Your task to perform on an android device: Show me popular videos on Youtube Image 0: 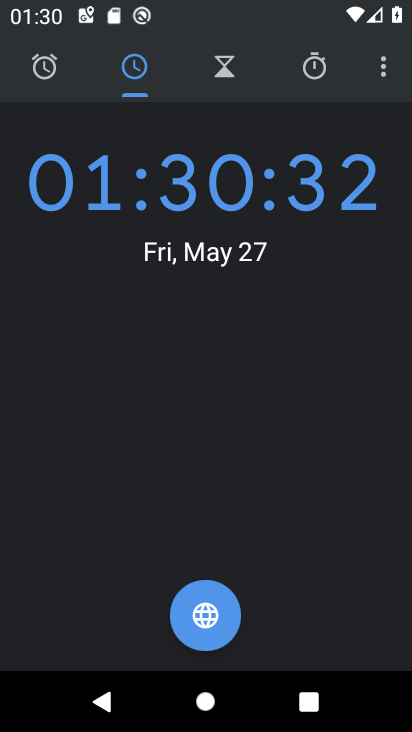
Step 0: press home button
Your task to perform on an android device: Show me popular videos on Youtube Image 1: 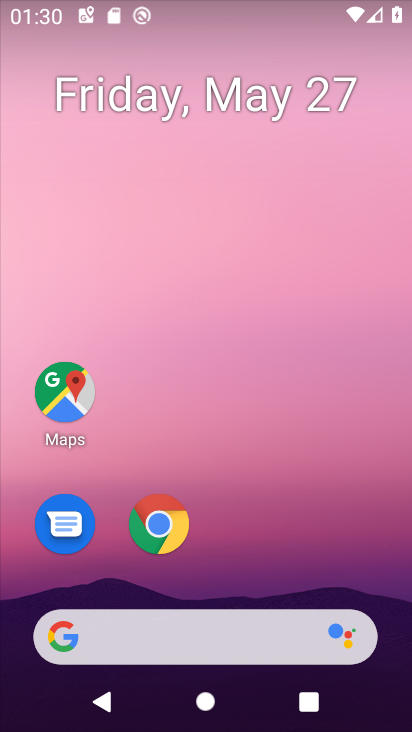
Step 1: drag from (232, 545) to (274, 0)
Your task to perform on an android device: Show me popular videos on Youtube Image 2: 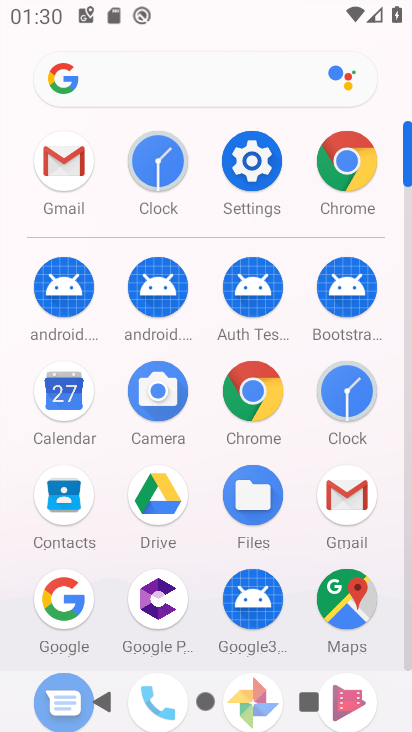
Step 2: drag from (215, 566) to (194, 191)
Your task to perform on an android device: Show me popular videos on Youtube Image 3: 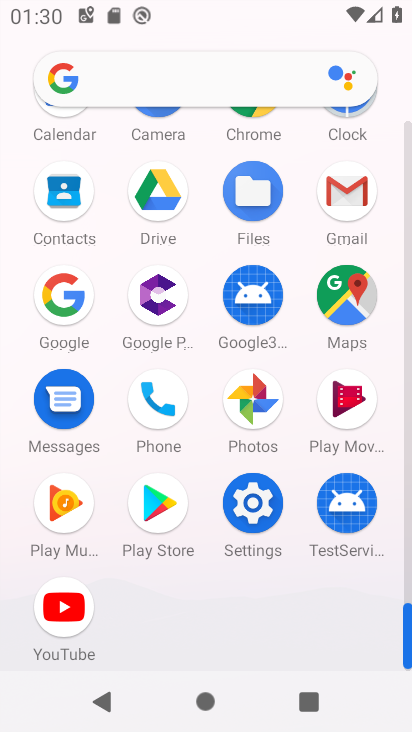
Step 3: click (65, 608)
Your task to perform on an android device: Show me popular videos on Youtube Image 4: 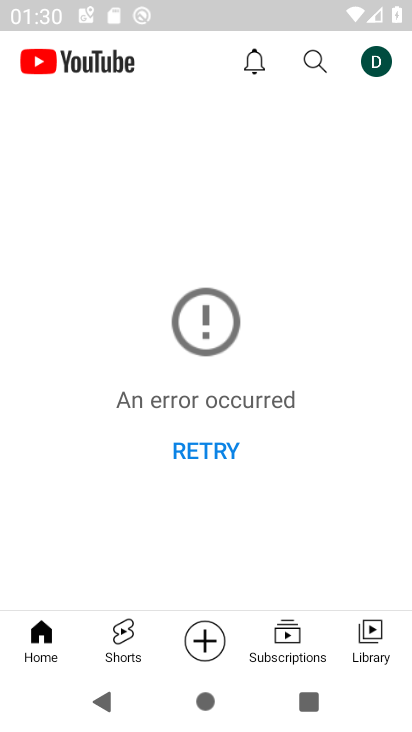
Step 4: click (317, 53)
Your task to perform on an android device: Show me popular videos on Youtube Image 5: 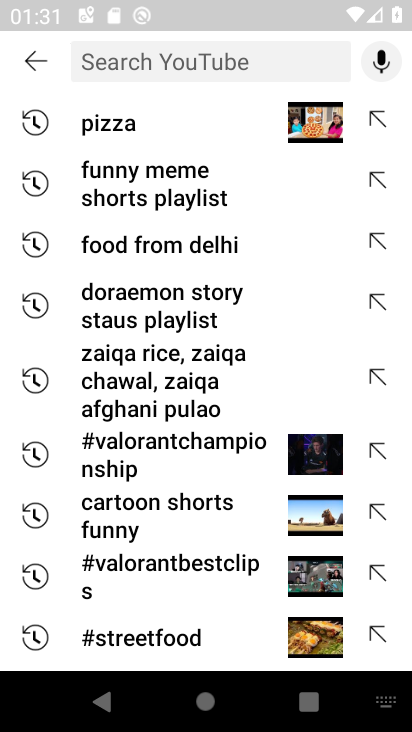
Step 5: type "popular videos"
Your task to perform on an android device: Show me popular videos on Youtube Image 6: 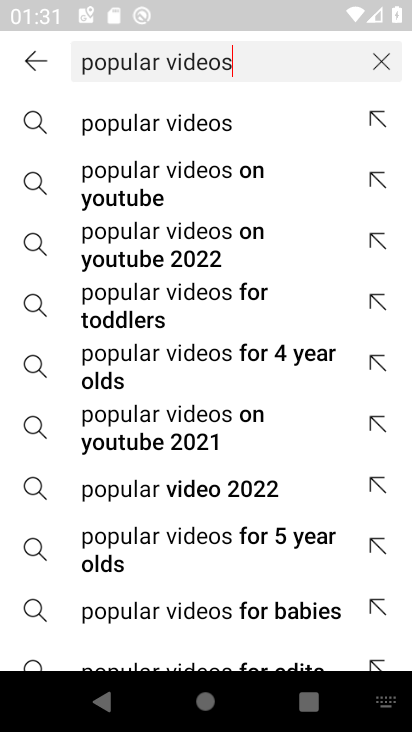
Step 6: click (218, 162)
Your task to perform on an android device: Show me popular videos on Youtube Image 7: 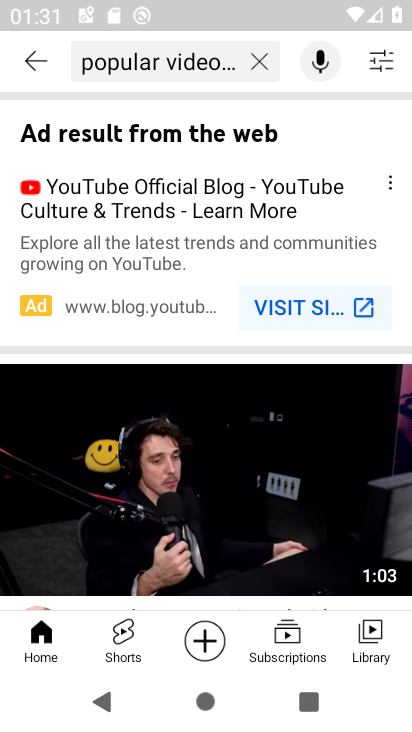
Step 7: task complete